Your task to perform on an android device: Open Google Image 0: 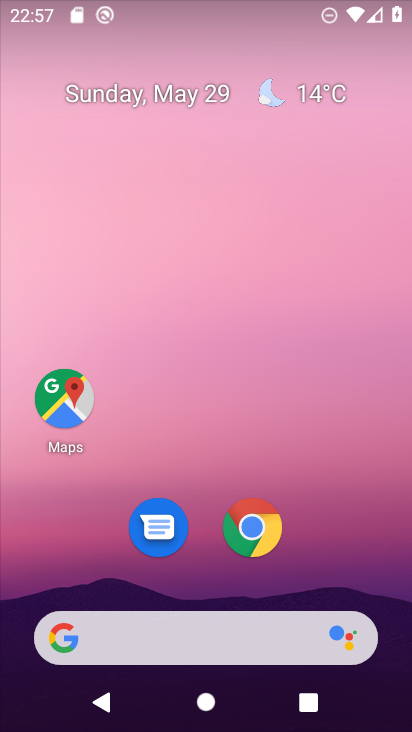
Step 0: drag from (226, 632) to (345, 47)
Your task to perform on an android device: Open Google Image 1: 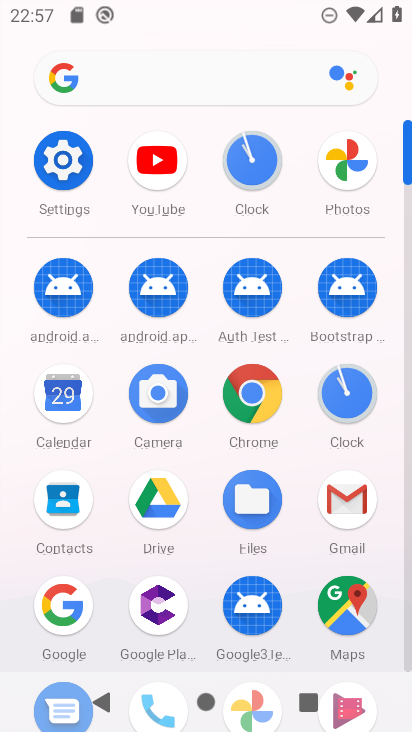
Step 1: click (66, 606)
Your task to perform on an android device: Open Google Image 2: 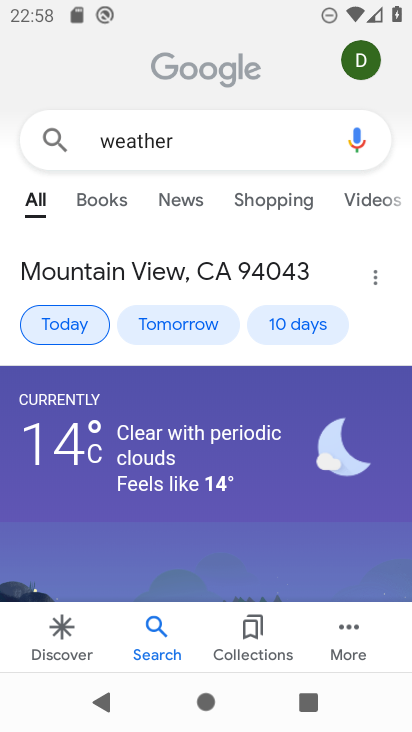
Step 2: task complete